Your task to perform on an android device: turn off javascript in the chrome app Image 0: 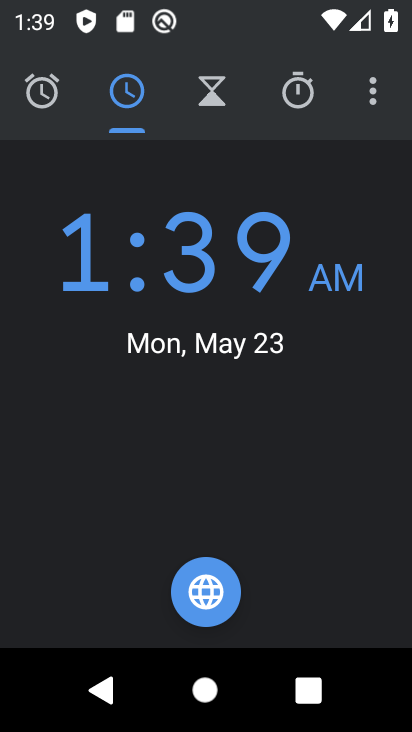
Step 0: press home button
Your task to perform on an android device: turn off javascript in the chrome app Image 1: 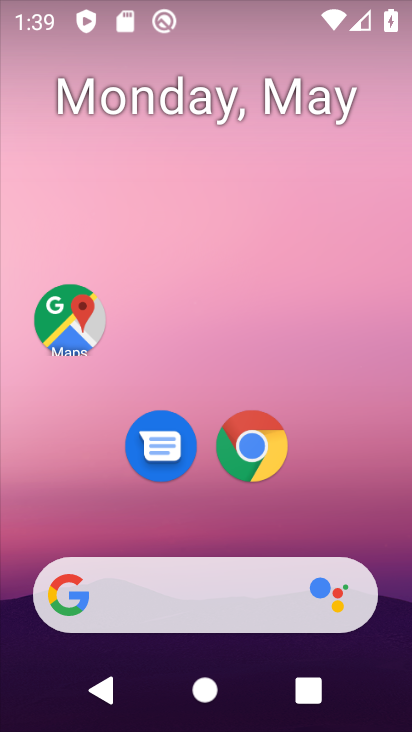
Step 1: drag from (353, 351) to (344, 204)
Your task to perform on an android device: turn off javascript in the chrome app Image 2: 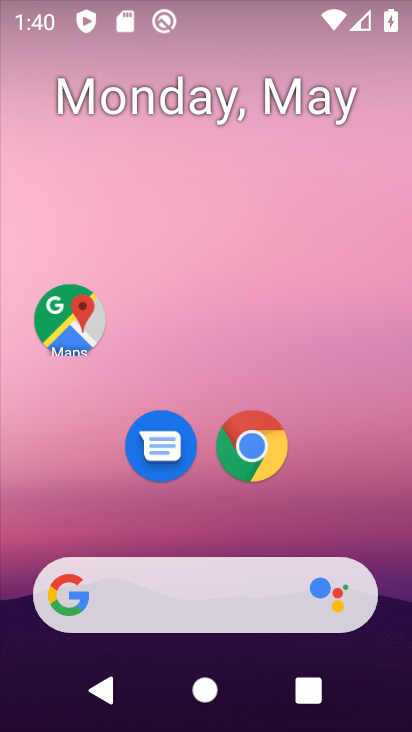
Step 2: drag from (356, 493) to (376, 185)
Your task to perform on an android device: turn off javascript in the chrome app Image 3: 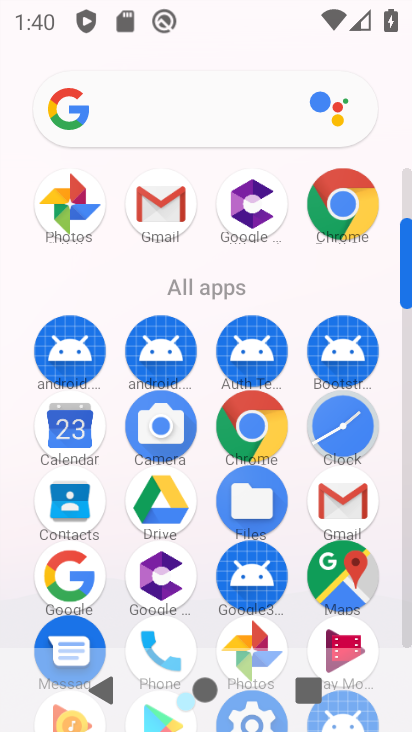
Step 3: click (250, 407)
Your task to perform on an android device: turn off javascript in the chrome app Image 4: 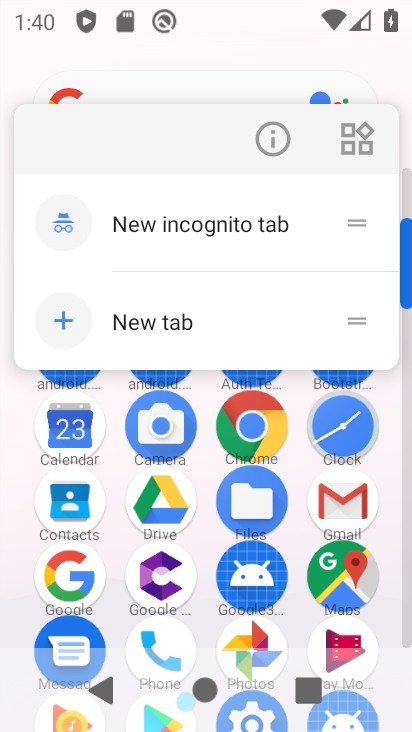
Step 4: click (248, 423)
Your task to perform on an android device: turn off javascript in the chrome app Image 5: 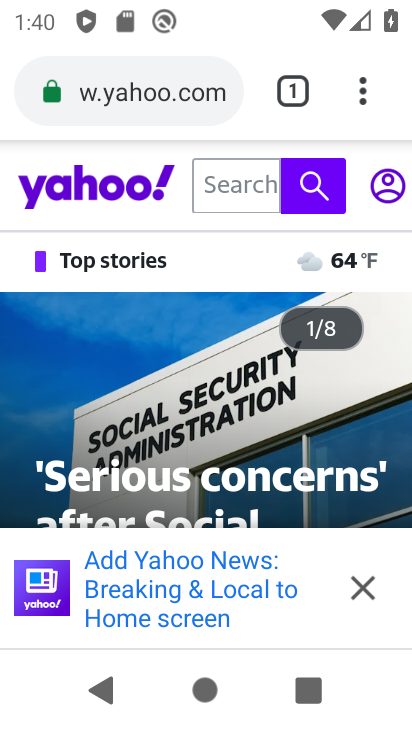
Step 5: drag from (376, 97) to (285, 469)
Your task to perform on an android device: turn off javascript in the chrome app Image 6: 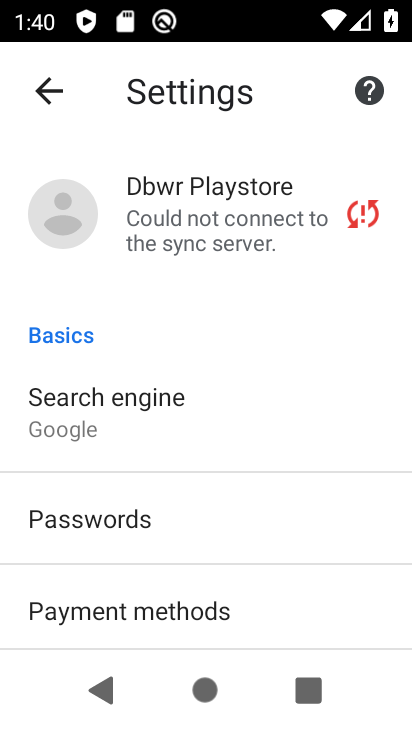
Step 6: drag from (258, 579) to (244, 278)
Your task to perform on an android device: turn off javascript in the chrome app Image 7: 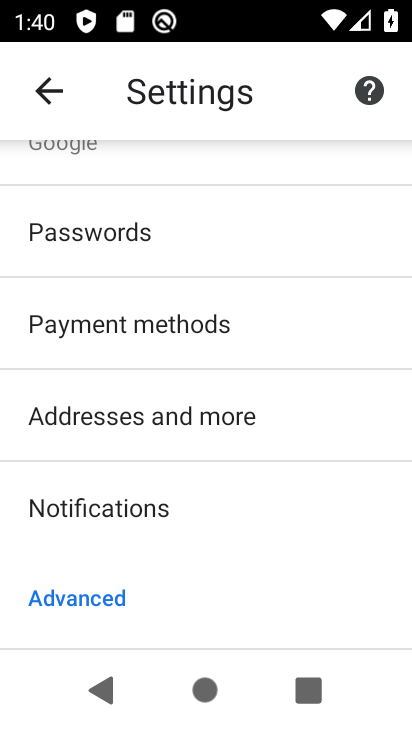
Step 7: drag from (213, 543) to (244, 245)
Your task to perform on an android device: turn off javascript in the chrome app Image 8: 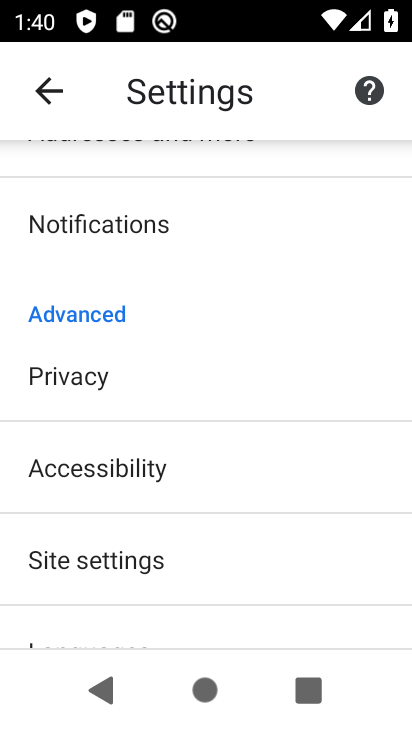
Step 8: drag from (208, 552) to (252, 225)
Your task to perform on an android device: turn off javascript in the chrome app Image 9: 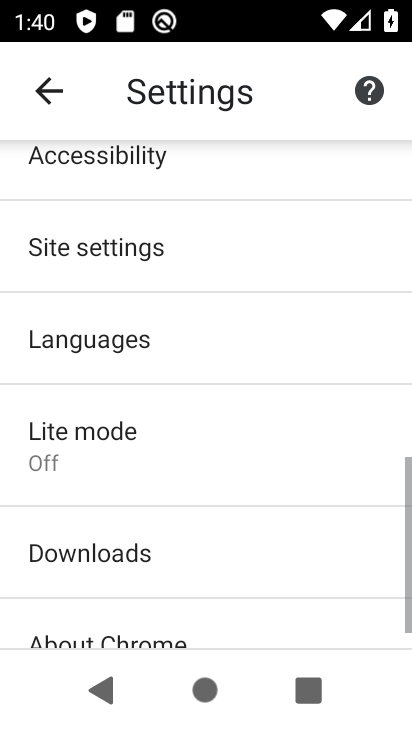
Step 9: click (205, 247)
Your task to perform on an android device: turn off javascript in the chrome app Image 10: 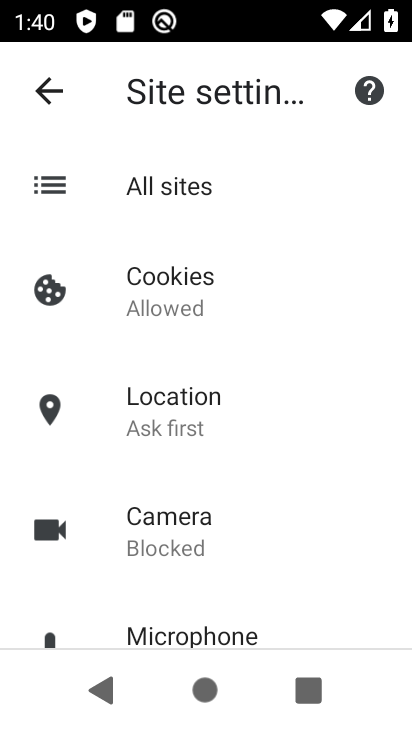
Step 10: drag from (265, 530) to (271, 262)
Your task to perform on an android device: turn off javascript in the chrome app Image 11: 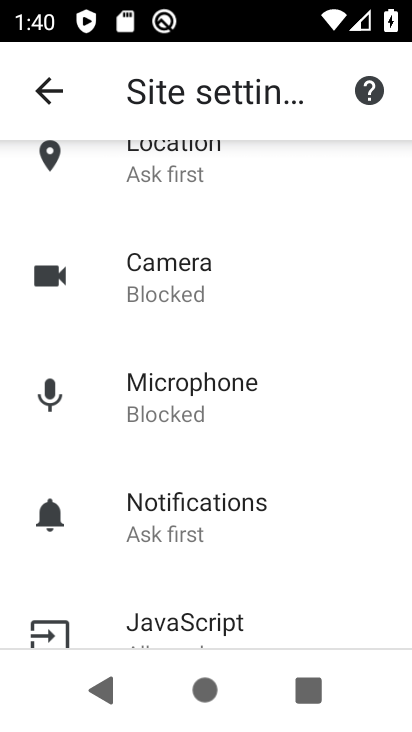
Step 11: click (204, 618)
Your task to perform on an android device: turn off javascript in the chrome app Image 12: 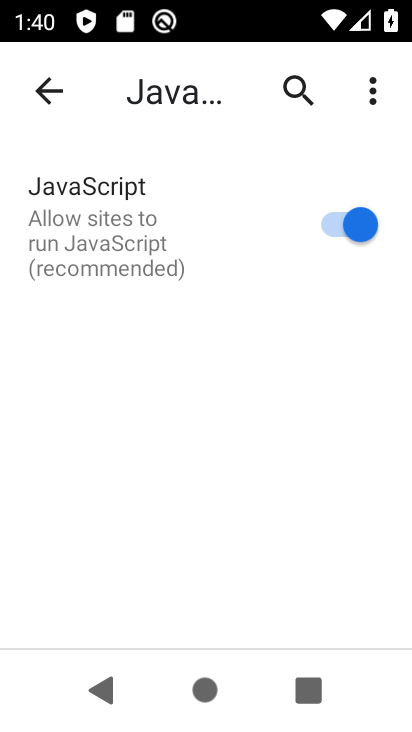
Step 12: click (337, 226)
Your task to perform on an android device: turn off javascript in the chrome app Image 13: 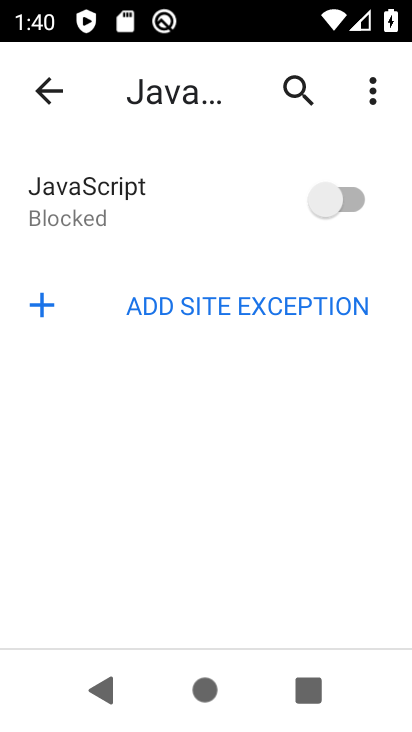
Step 13: task complete